Your task to perform on an android device: Open privacy settings Image 0: 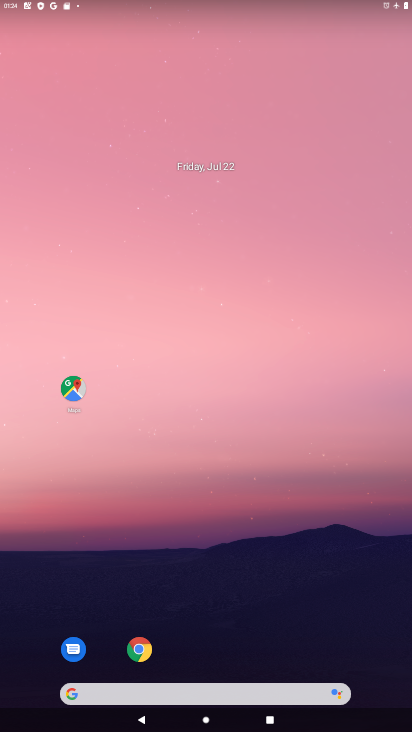
Step 0: drag from (272, 616) to (308, 62)
Your task to perform on an android device: Open privacy settings Image 1: 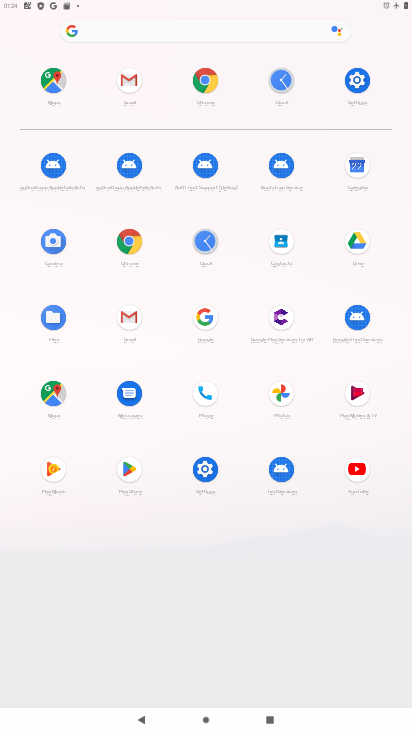
Step 1: click (347, 84)
Your task to perform on an android device: Open privacy settings Image 2: 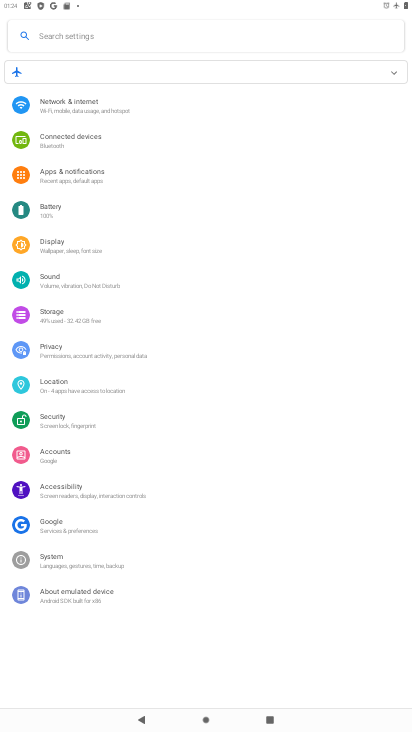
Step 2: click (62, 350)
Your task to perform on an android device: Open privacy settings Image 3: 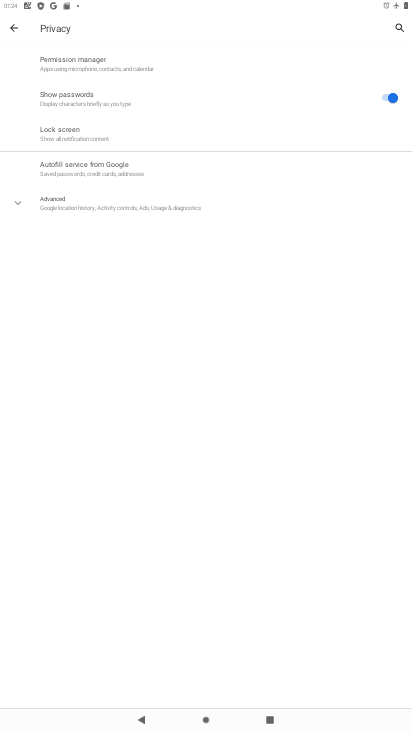
Step 3: task complete